Your task to perform on an android device: Go to calendar. Show me events next week Image 0: 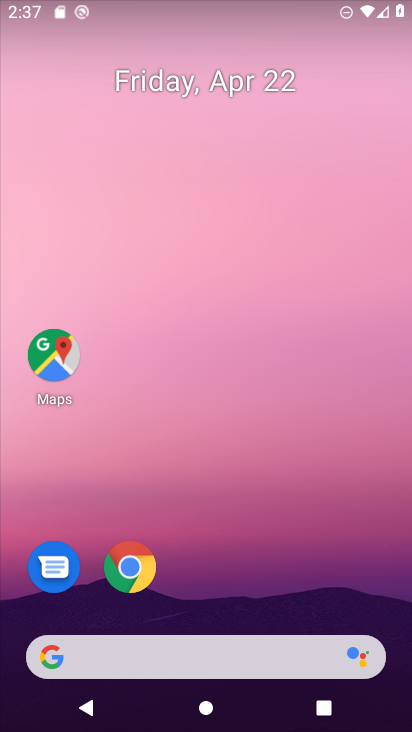
Step 0: drag from (199, 501) to (196, 158)
Your task to perform on an android device: Go to calendar. Show me events next week Image 1: 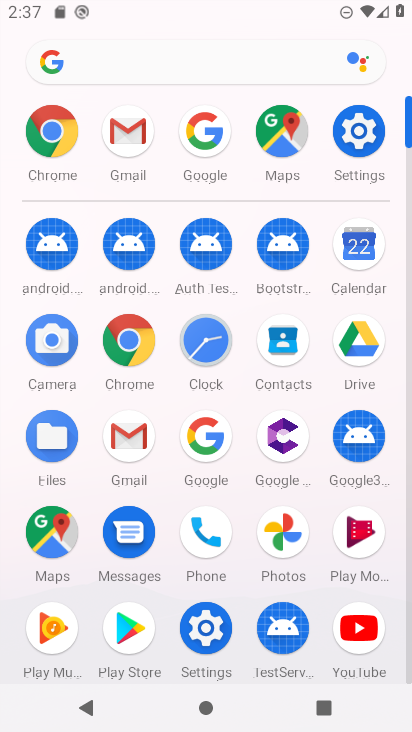
Step 1: click (375, 233)
Your task to perform on an android device: Go to calendar. Show me events next week Image 2: 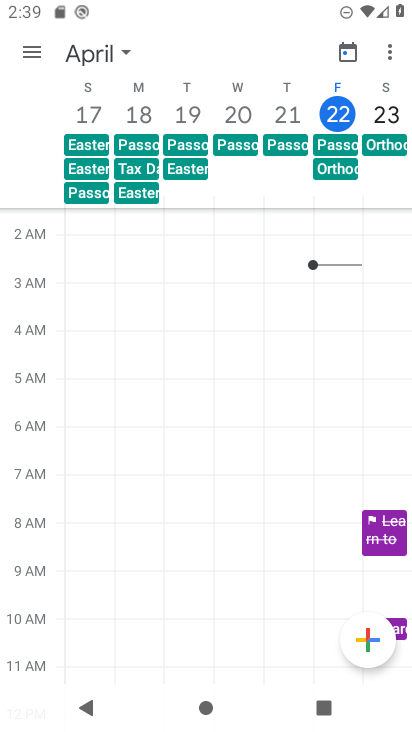
Step 2: task complete